Your task to perform on an android device: Add usb-b to the cart on costco, then select checkout. Image 0: 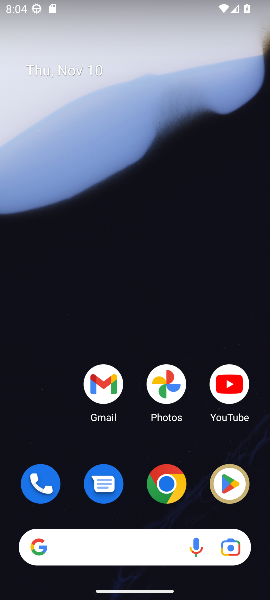
Step 0: click (174, 473)
Your task to perform on an android device: Add usb-b to the cart on costco, then select checkout. Image 1: 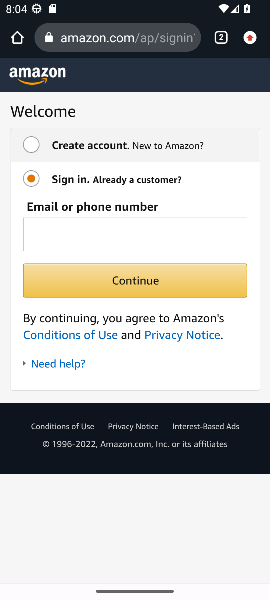
Step 1: click (128, 33)
Your task to perform on an android device: Add usb-b to the cart on costco, then select checkout. Image 2: 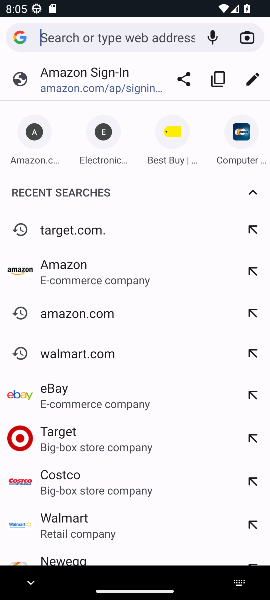
Step 2: type "costco.com"
Your task to perform on an android device: Add usb-b to the cart on costco, then select checkout. Image 3: 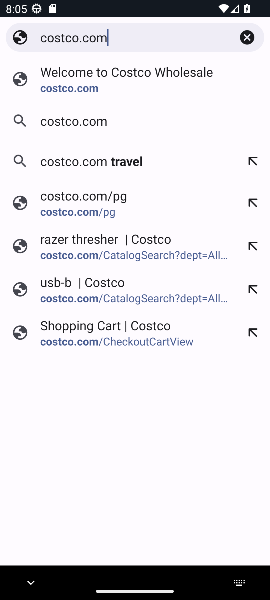
Step 3: click (92, 87)
Your task to perform on an android device: Add usb-b to the cart on costco, then select checkout. Image 4: 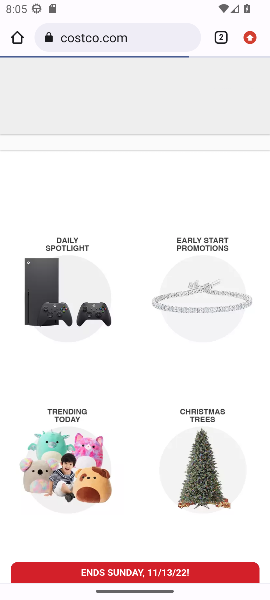
Step 4: click (108, 115)
Your task to perform on an android device: Add usb-b to the cart on costco, then select checkout. Image 5: 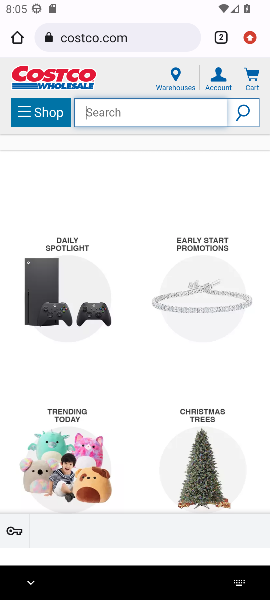
Step 5: click (108, 115)
Your task to perform on an android device: Add usb-b to the cart on costco, then select checkout. Image 6: 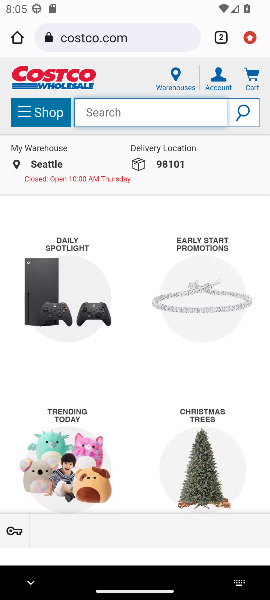
Step 6: type "usb-b"
Your task to perform on an android device: Add usb-b to the cart on costco, then select checkout. Image 7: 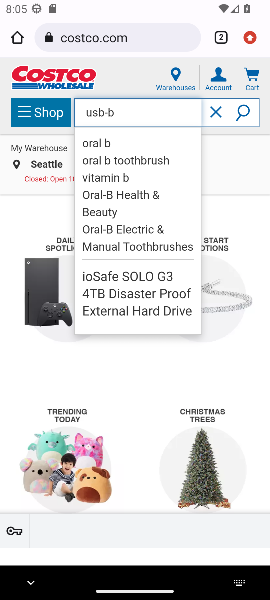
Step 7: click (244, 112)
Your task to perform on an android device: Add usb-b to the cart on costco, then select checkout. Image 8: 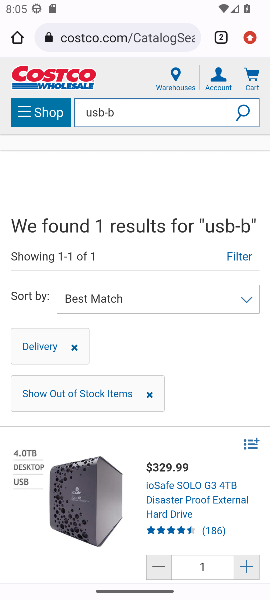
Step 8: task complete